Your task to perform on an android device: Open Amazon Image 0: 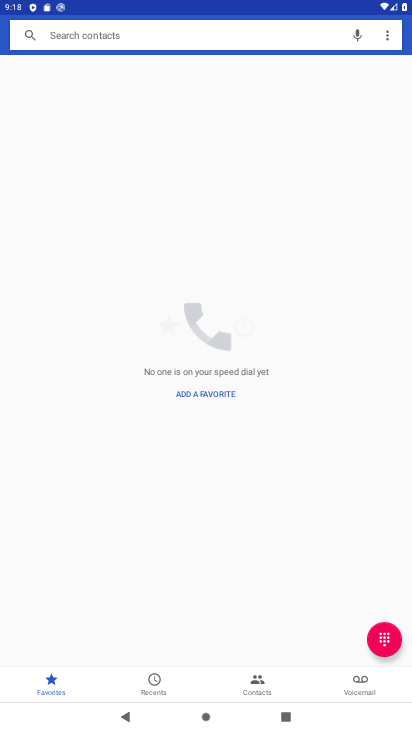
Step 0: press home button
Your task to perform on an android device: Open Amazon Image 1: 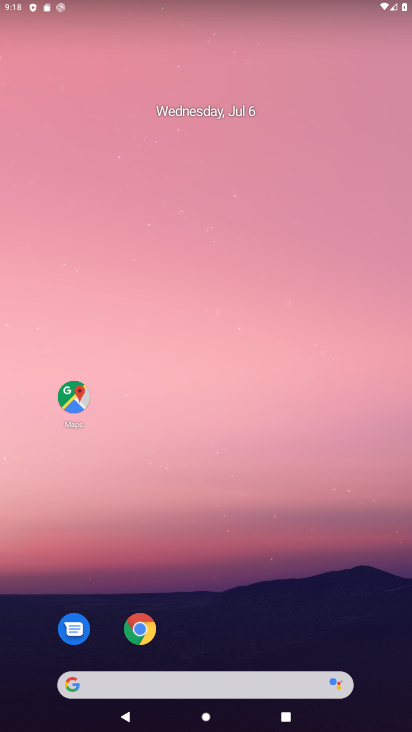
Step 1: click (132, 631)
Your task to perform on an android device: Open Amazon Image 2: 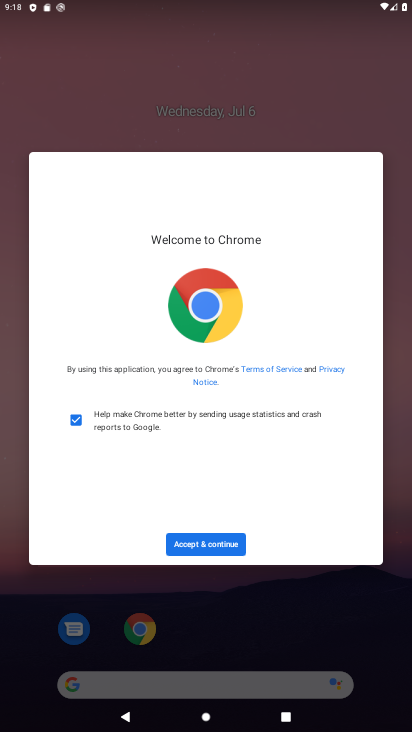
Step 2: click (216, 546)
Your task to perform on an android device: Open Amazon Image 3: 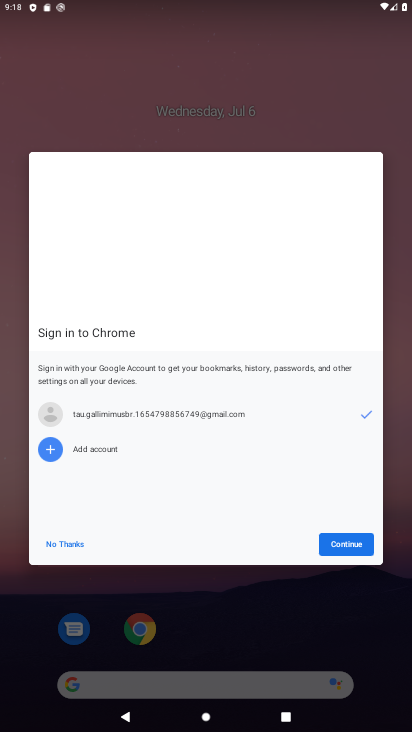
Step 3: click (354, 549)
Your task to perform on an android device: Open Amazon Image 4: 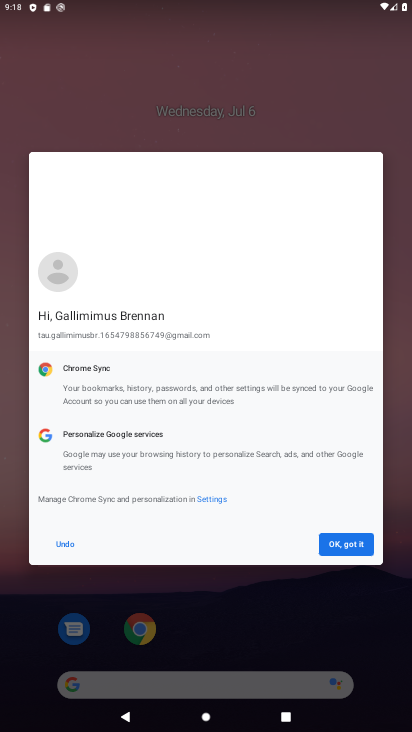
Step 4: click (357, 546)
Your task to perform on an android device: Open Amazon Image 5: 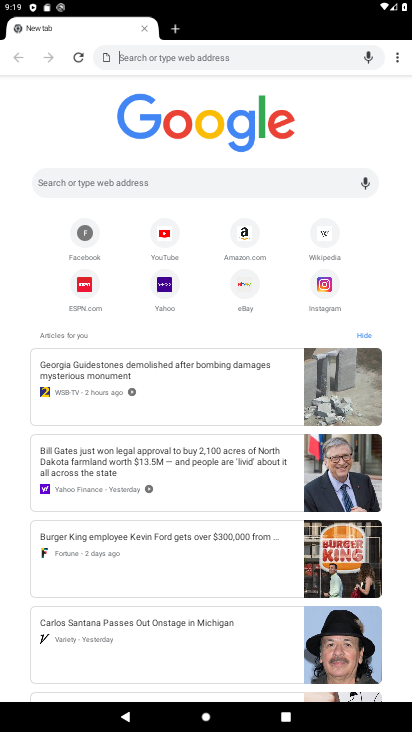
Step 5: click (242, 240)
Your task to perform on an android device: Open Amazon Image 6: 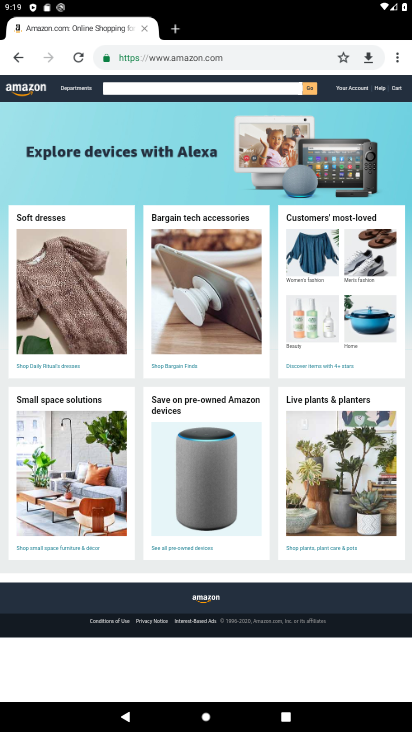
Step 6: task complete